Your task to perform on an android device: turn on bluetooth scan Image 0: 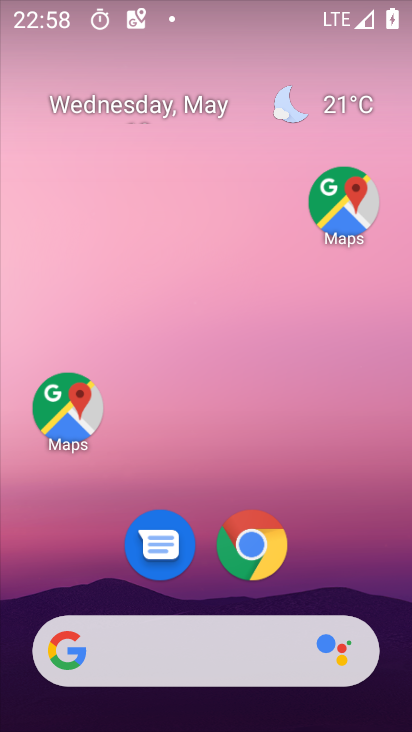
Step 0: drag from (319, 555) to (273, 27)
Your task to perform on an android device: turn on bluetooth scan Image 1: 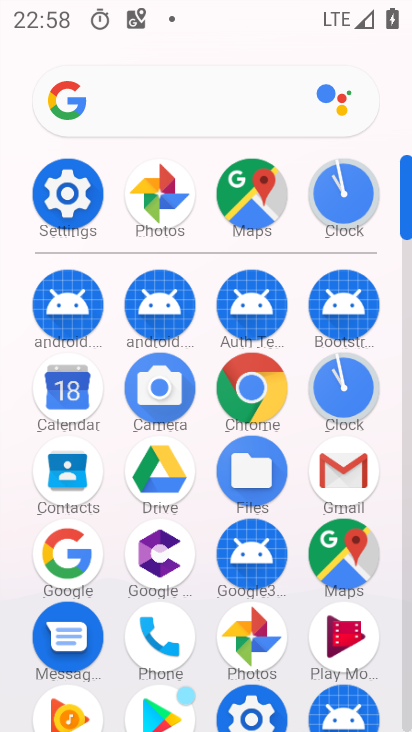
Step 1: drag from (295, 632) to (284, 176)
Your task to perform on an android device: turn on bluetooth scan Image 2: 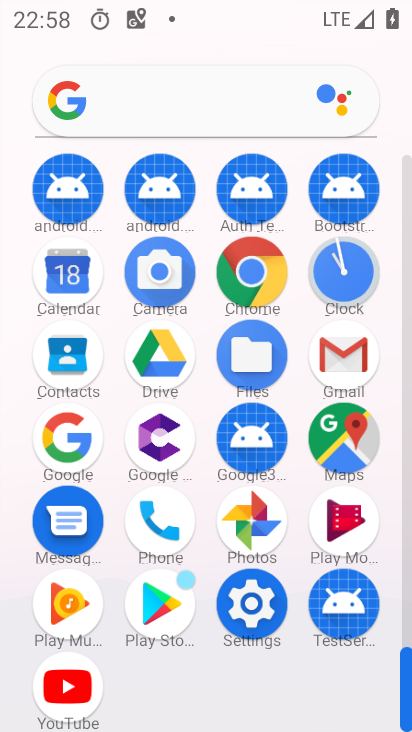
Step 2: click (253, 600)
Your task to perform on an android device: turn on bluetooth scan Image 3: 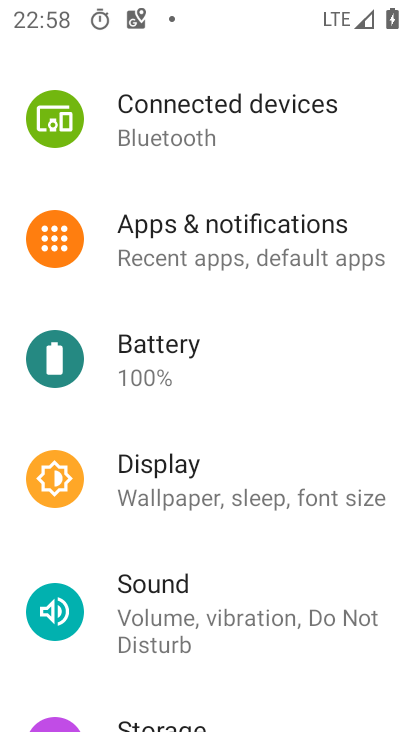
Step 3: drag from (220, 607) to (215, 191)
Your task to perform on an android device: turn on bluetooth scan Image 4: 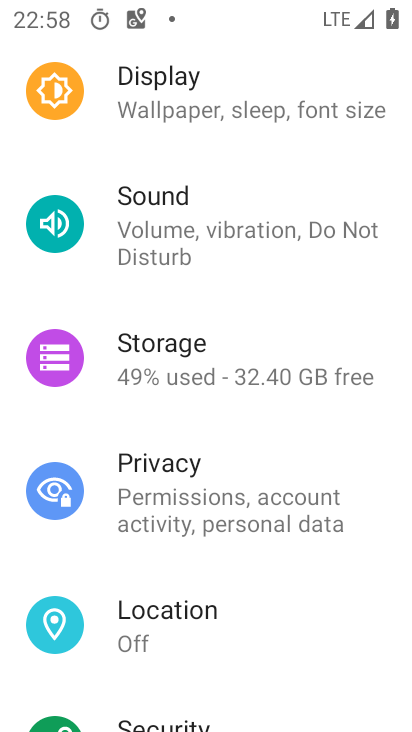
Step 4: click (213, 621)
Your task to perform on an android device: turn on bluetooth scan Image 5: 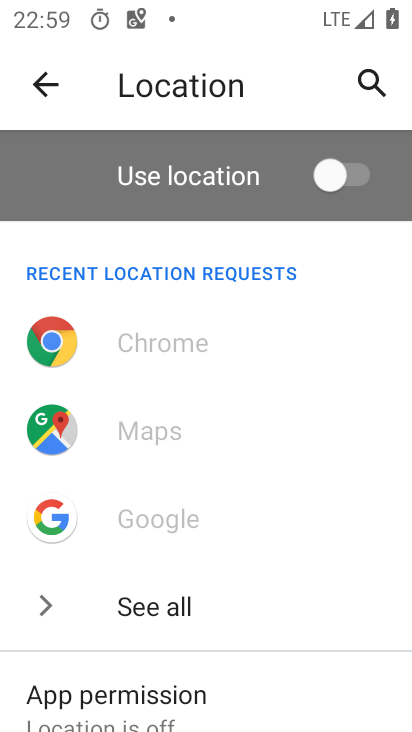
Step 5: drag from (221, 670) to (254, 197)
Your task to perform on an android device: turn on bluetooth scan Image 6: 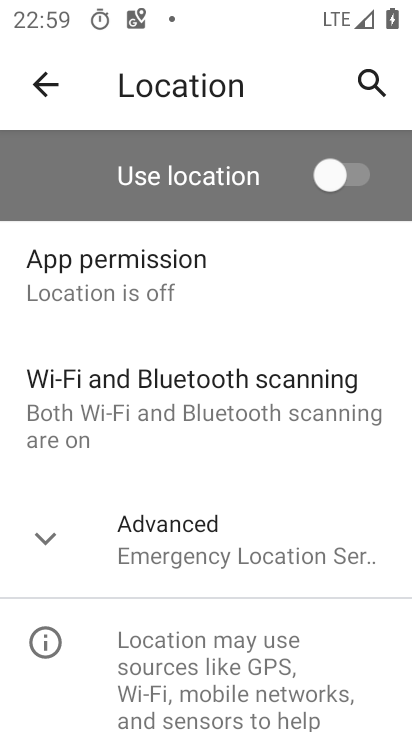
Step 6: click (235, 405)
Your task to perform on an android device: turn on bluetooth scan Image 7: 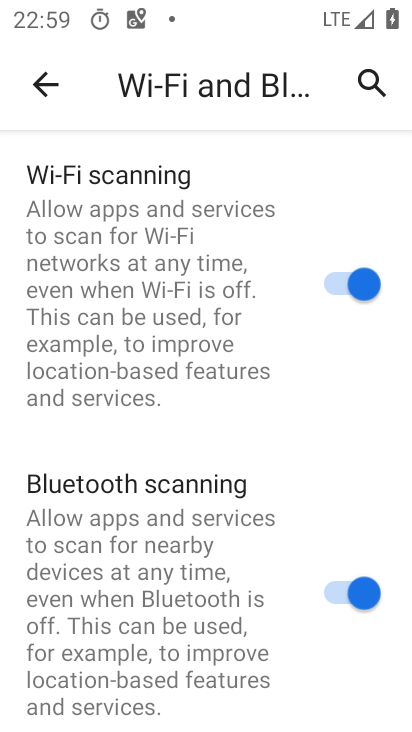
Step 7: task complete